Your task to perform on an android device: Open Google Maps Image 0: 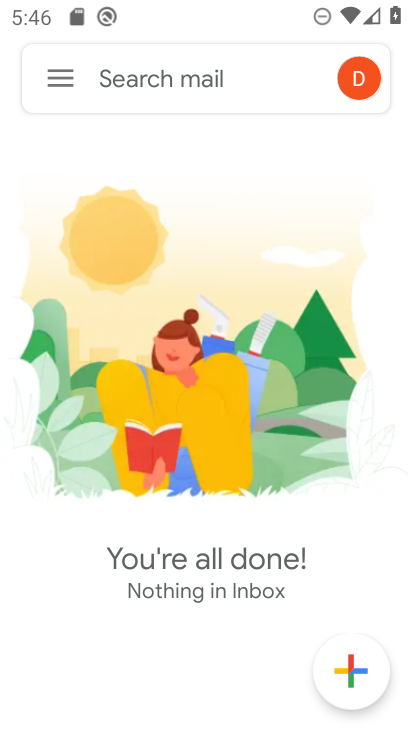
Step 0: press home button
Your task to perform on an android device: Open Google Maps Image 1: 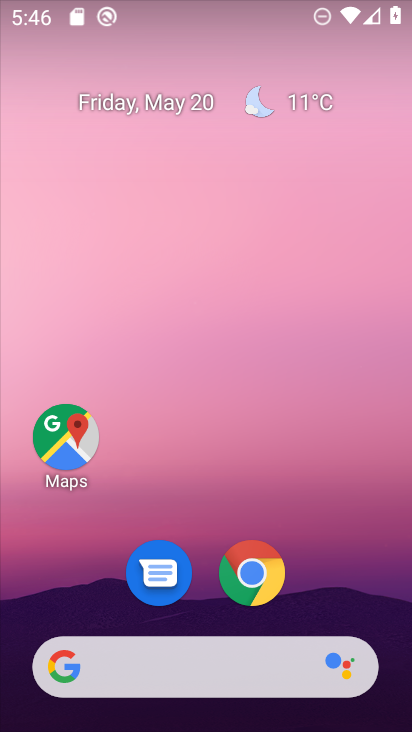
Step 1: click (58, 443)
Your task to perform on an android device: Open Google Maps Image 2: 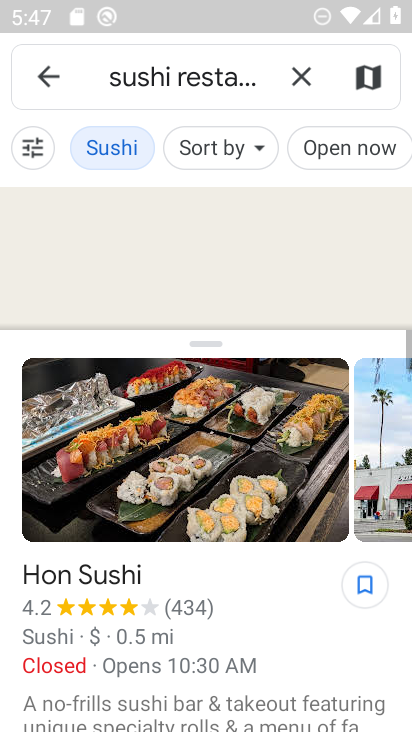
Step 2: task complete